Your task to perform on an android device: What is the recent news? Image 0: 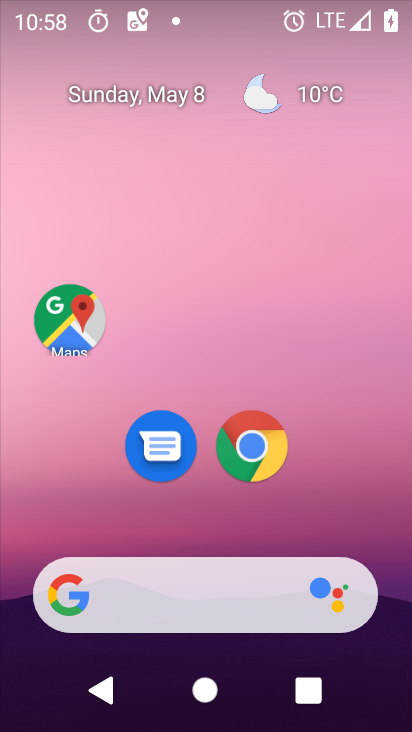
Step 0: drag from (22, 217) to (389, 279)
Your task to perform on an android device: What is the recent news? Image 1: 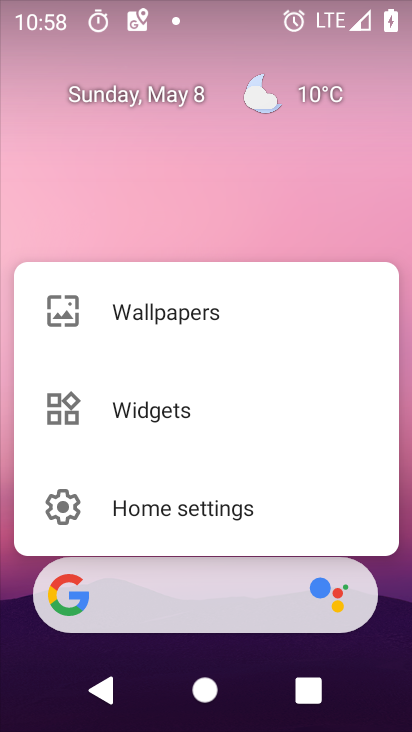
Step 1: task complete